Your task to perform on an android device: Open Google Chrome Image 0: 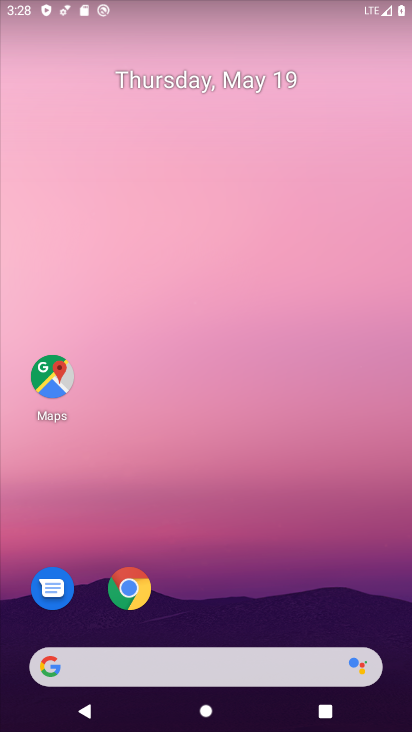
Step 0: drag from (267, 688) to (194, 215)
Your task to perform on an android device: Open Google Chrome Image 1: 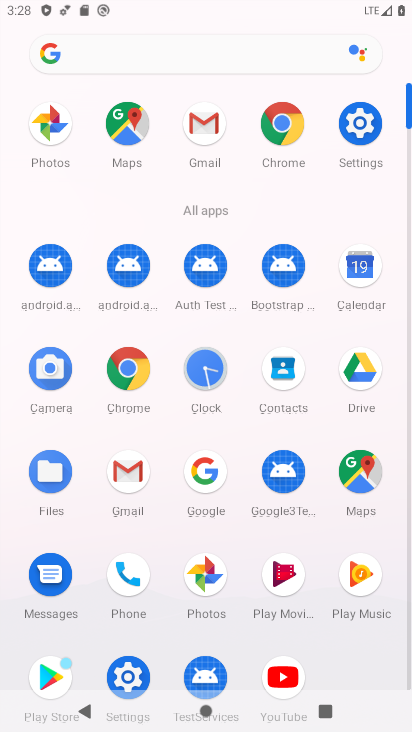
Step 1: click (282, 139)
Your task to perform on an android device: Open Google Chrome Image 2: 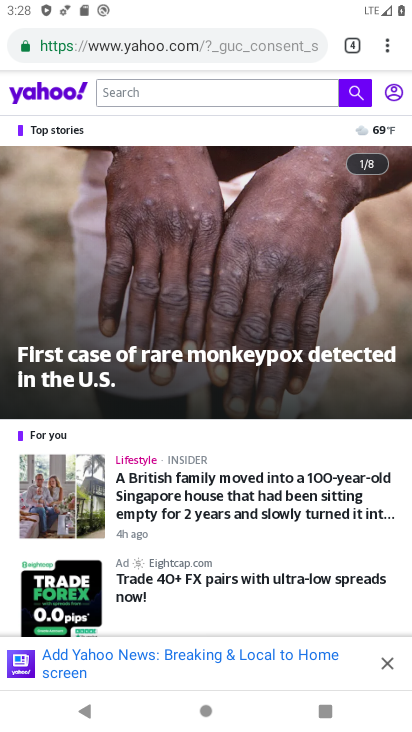
Step 2: click (344, 49)
Your task to perform on an android device: Open Google Chrome Image 3: 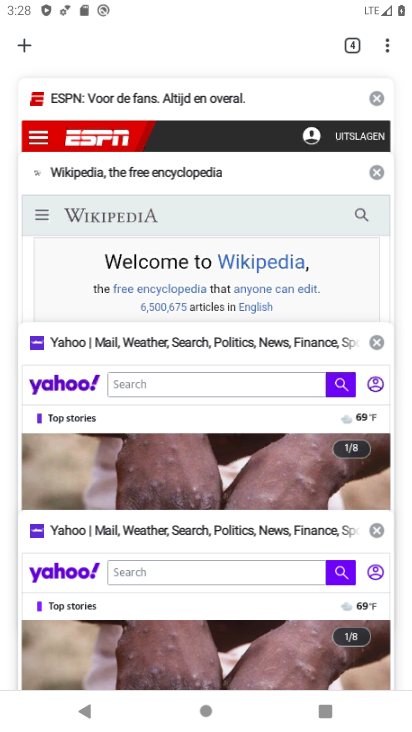
Step 3: click (35, 49)
Your task to perform on an android device: Open Google Chrome Image 4: 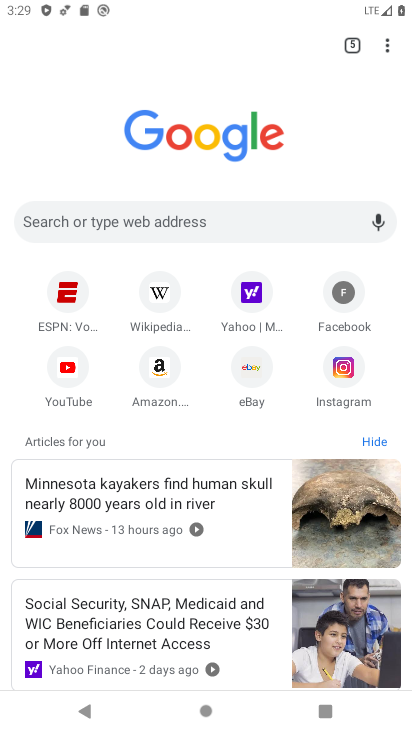
Step 4: task complete